Your task to perform on an android device: Add "asus rog" to the cart on newegg.com Image 0: 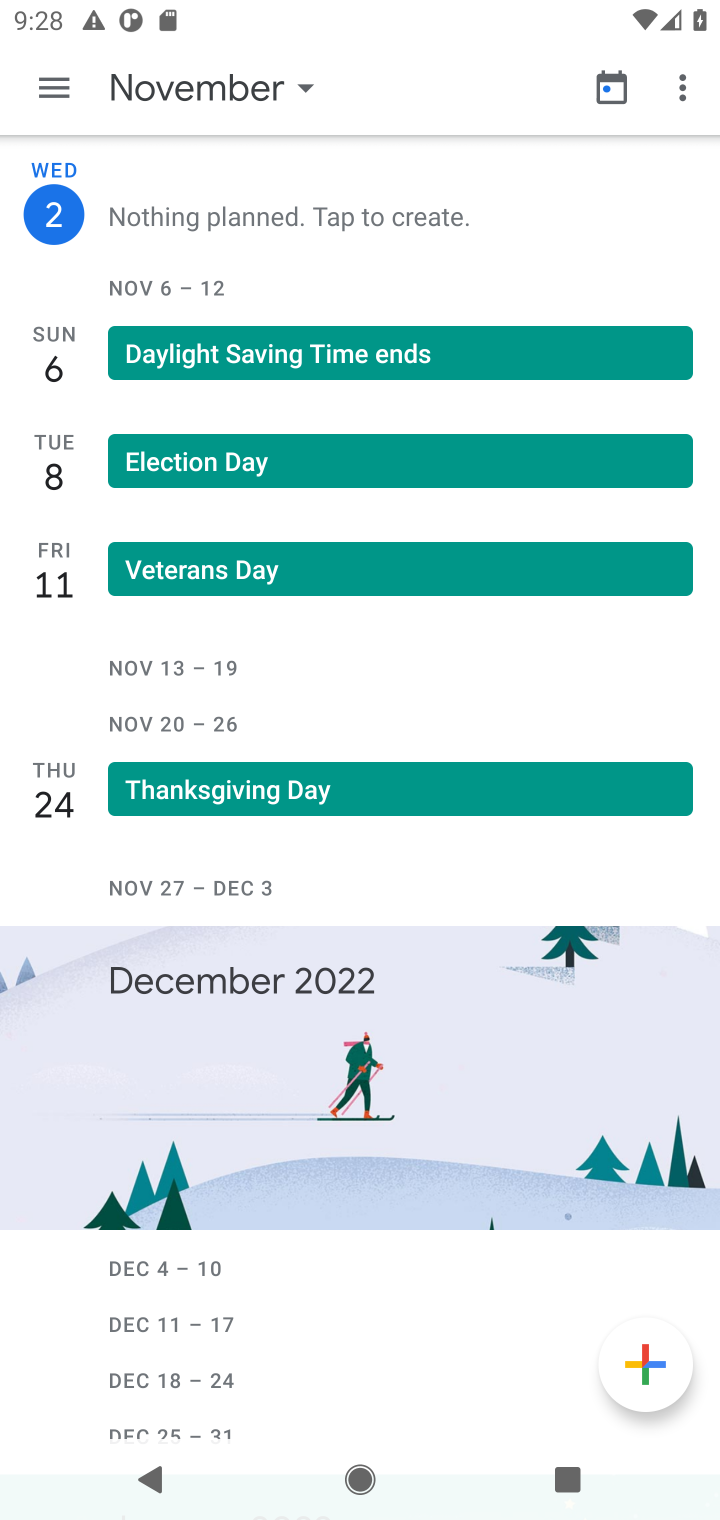
Step 0: press home button
Your task to perform on an android device: Add "asus rog" to the cart on newegg.com Image 1: 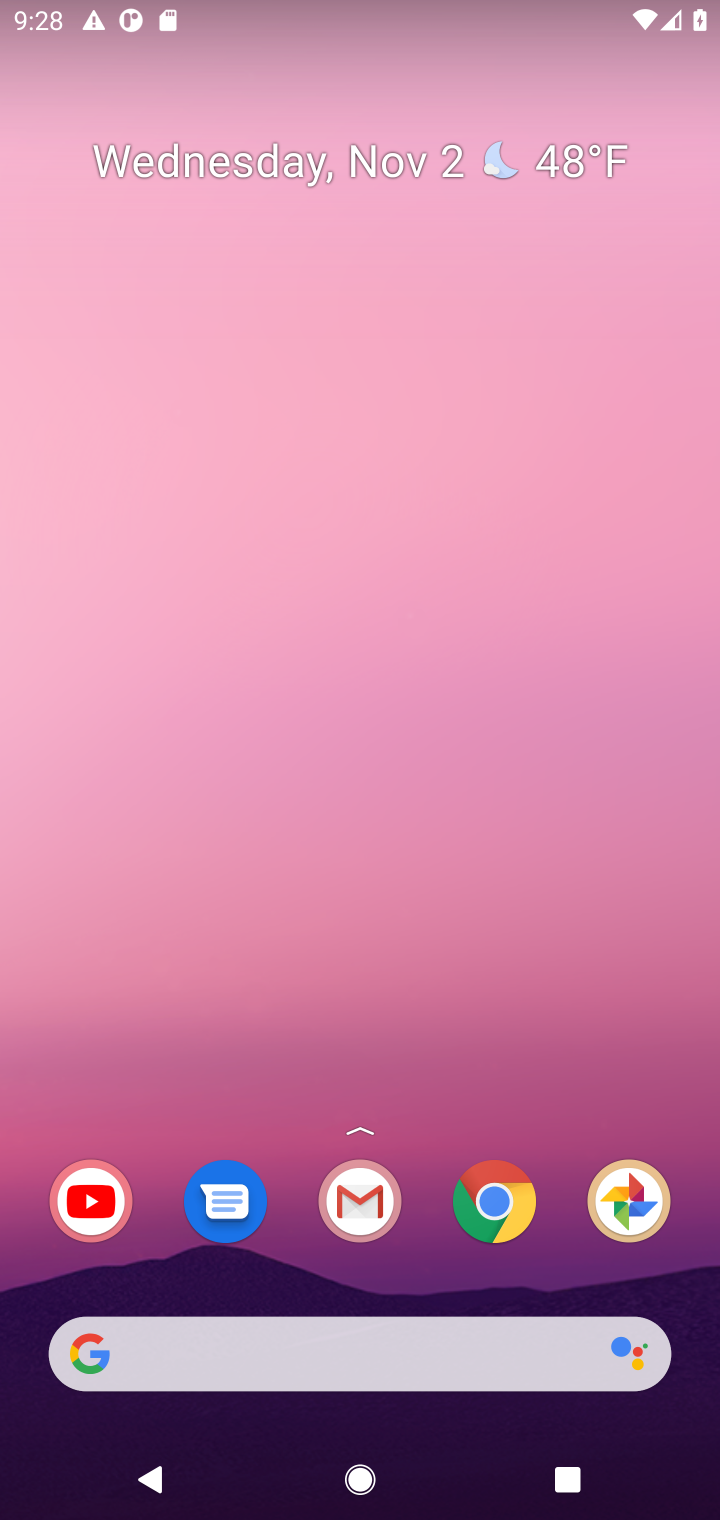
Step 1: drag from (424, 1294) to (412, 242)
Your task to perform on an android device: Add "asus rog" to the cart on newegg.com Image 2: 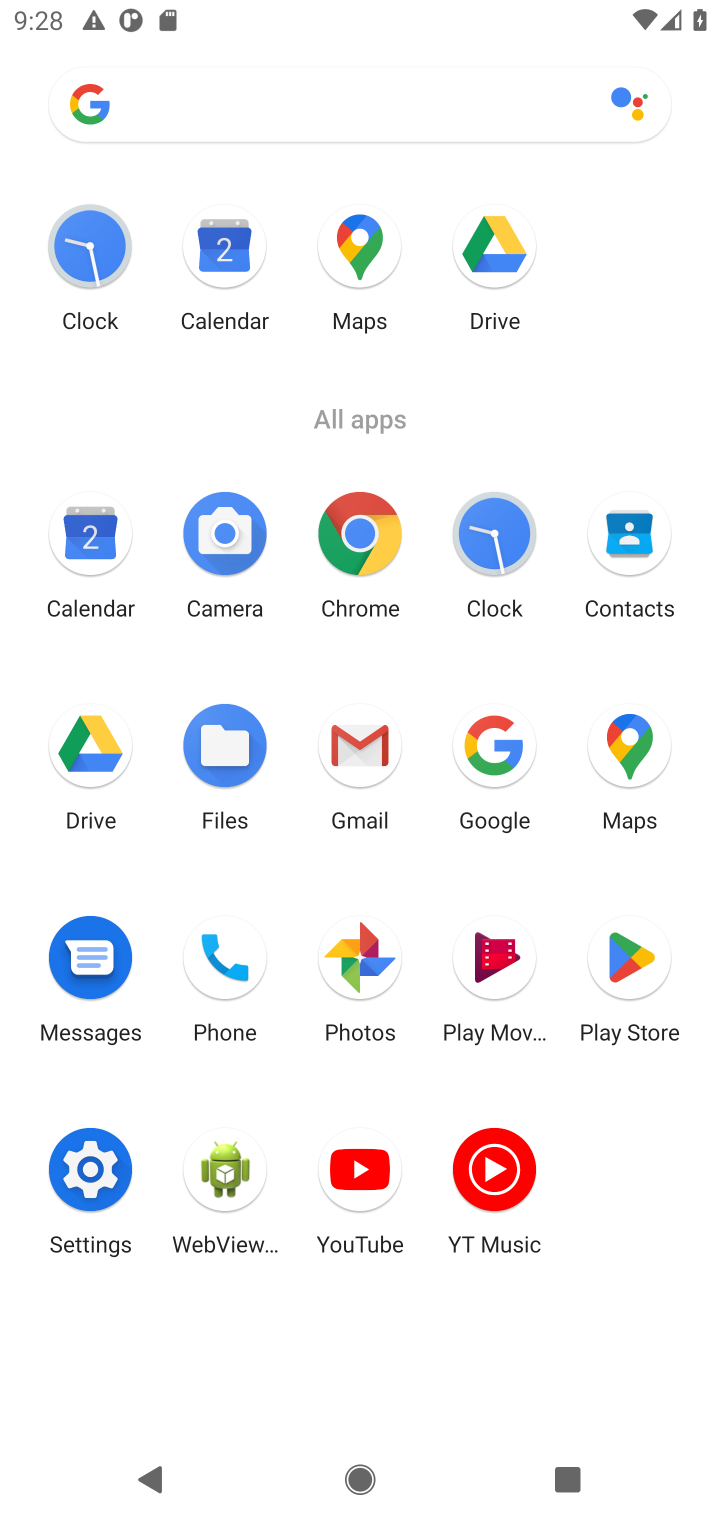
Step 2: click (360, 538)
Your task to perform on an android device: Add "asus rog" to the cart on newegg.com Image 3: 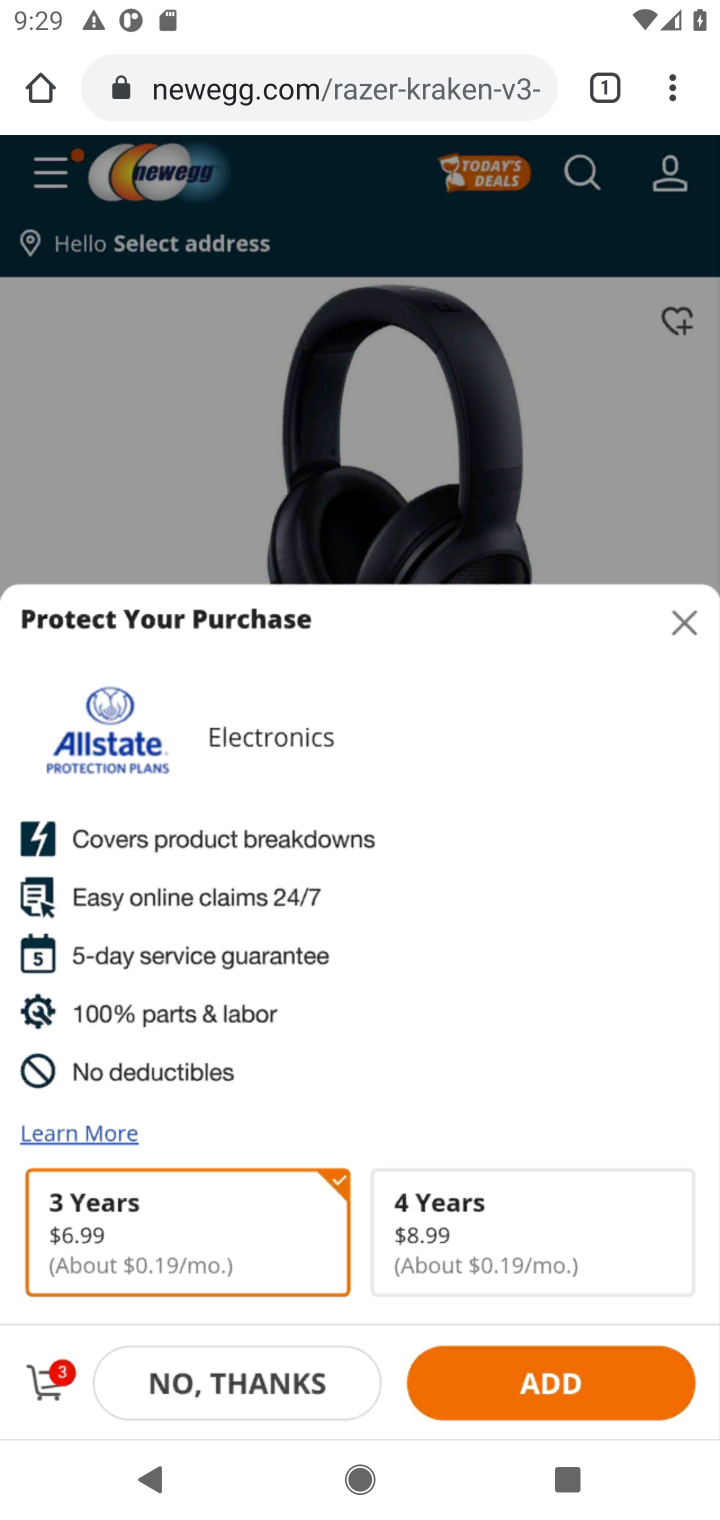
Step 3: click (455, 75)
Your task to perform on an android device: Add "asus rog" to the cart on newegg.com Image 4: 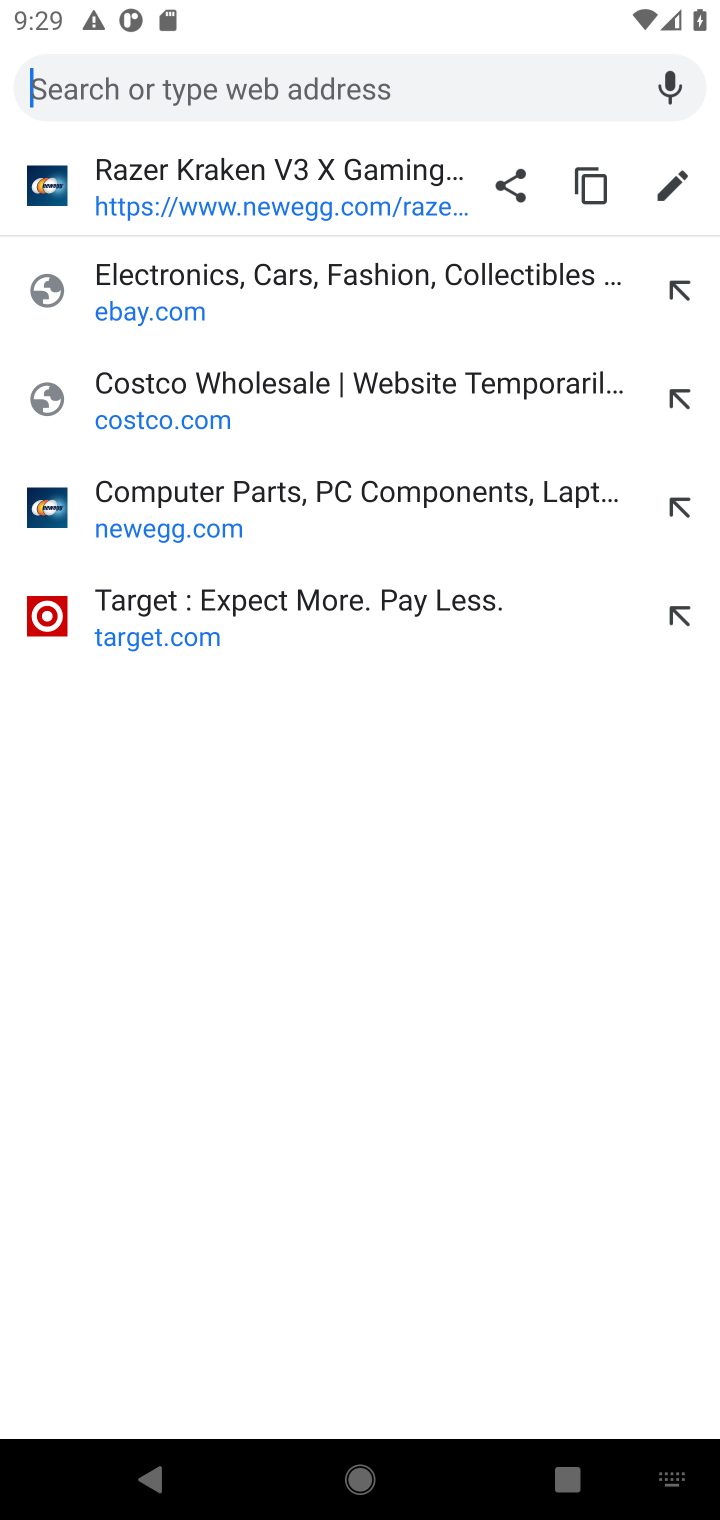
Step 4: type "newegg.com"
Your task to perform on an android device: Add "asus rog" to the cart on newegg.com Image 5: 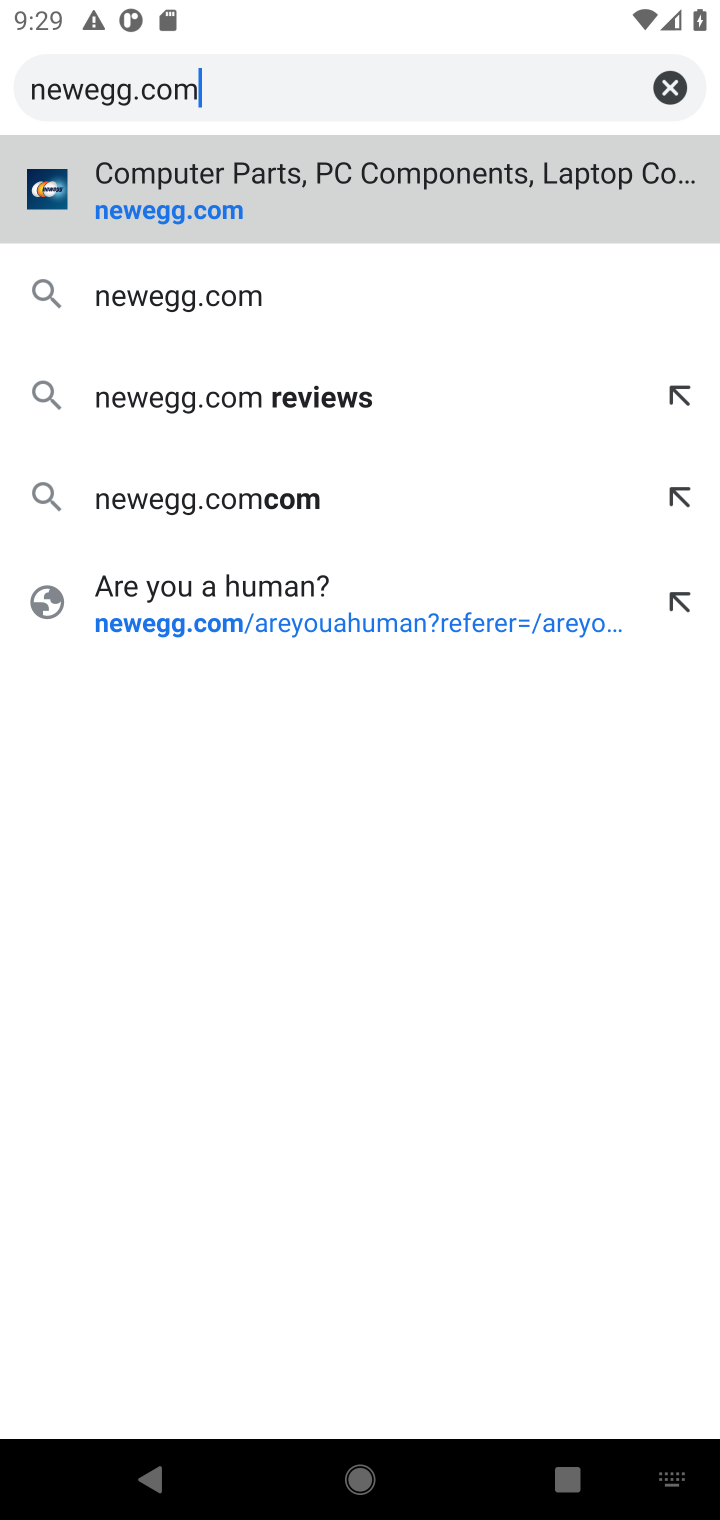
Step 5: press enter
Your task to perform on an android device: Add "asus rog" to the cart on newegg.com Image 6: 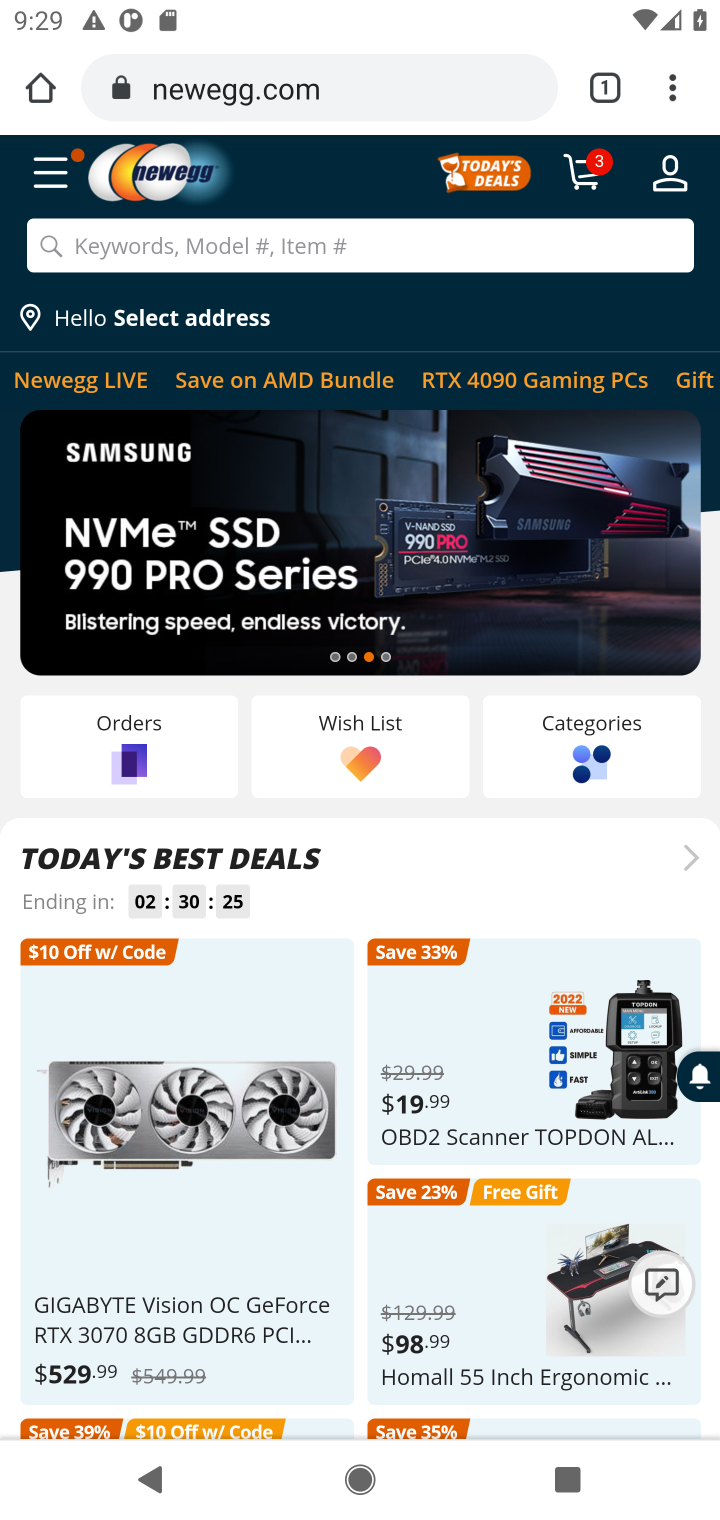
Step 6: click (505, 249)
Your task to perform on an android device: Add "asus rog" to the cart on newegg.com Image 7: 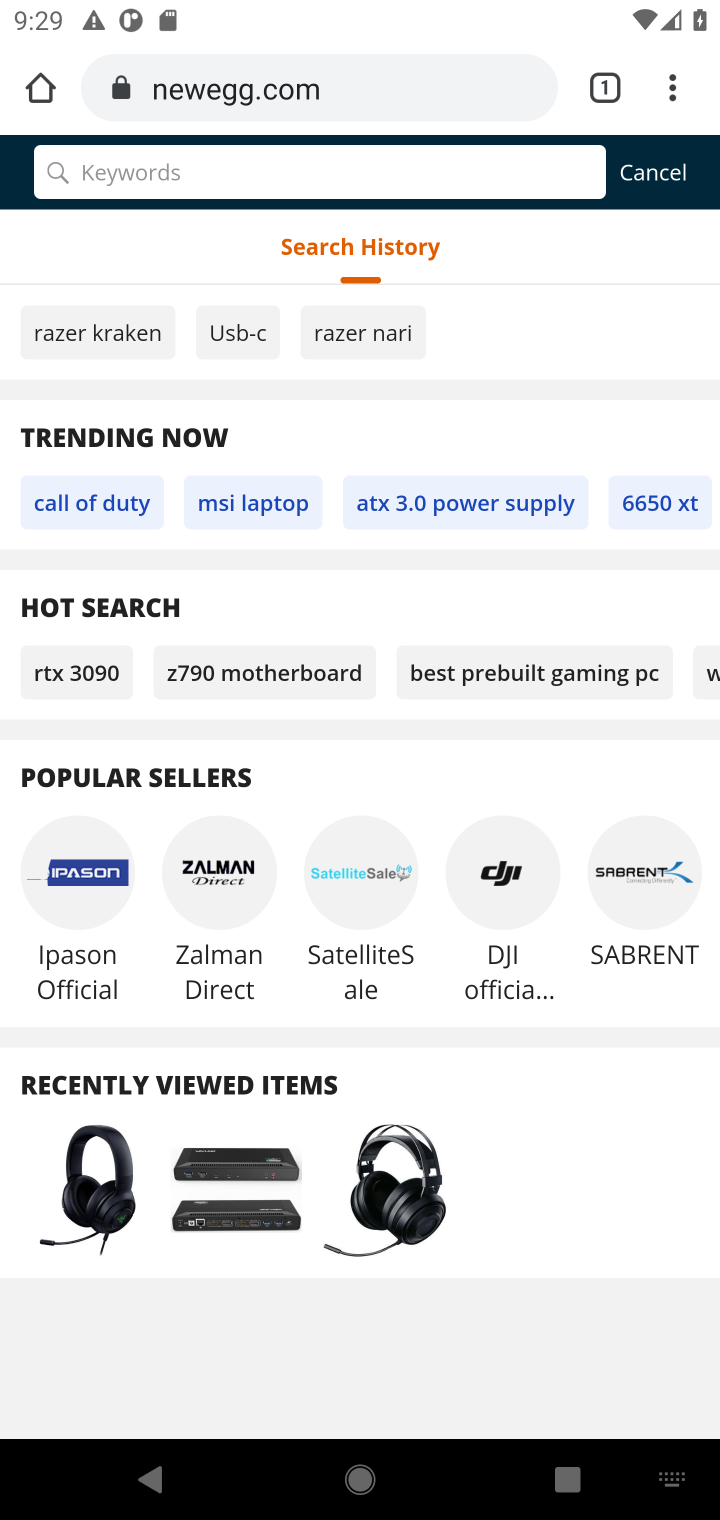
Step 7: type "asus rog"
Your task to perform on an android device: Add "asus rog" to the cart on newegg.com Image 8: 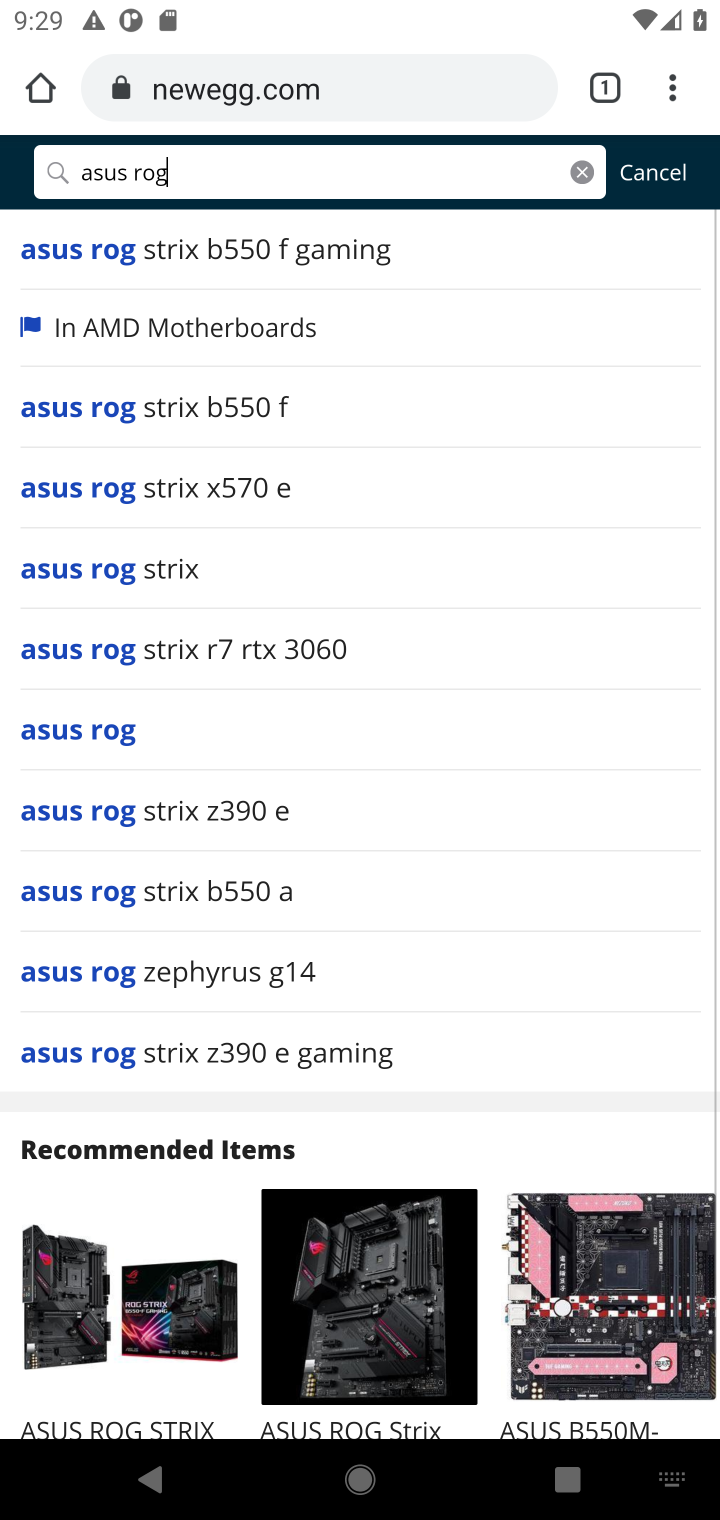
Step 8: press enter
Your task to perform on an android device: Add "asus rog" to the cart on newegg.com Image 9: 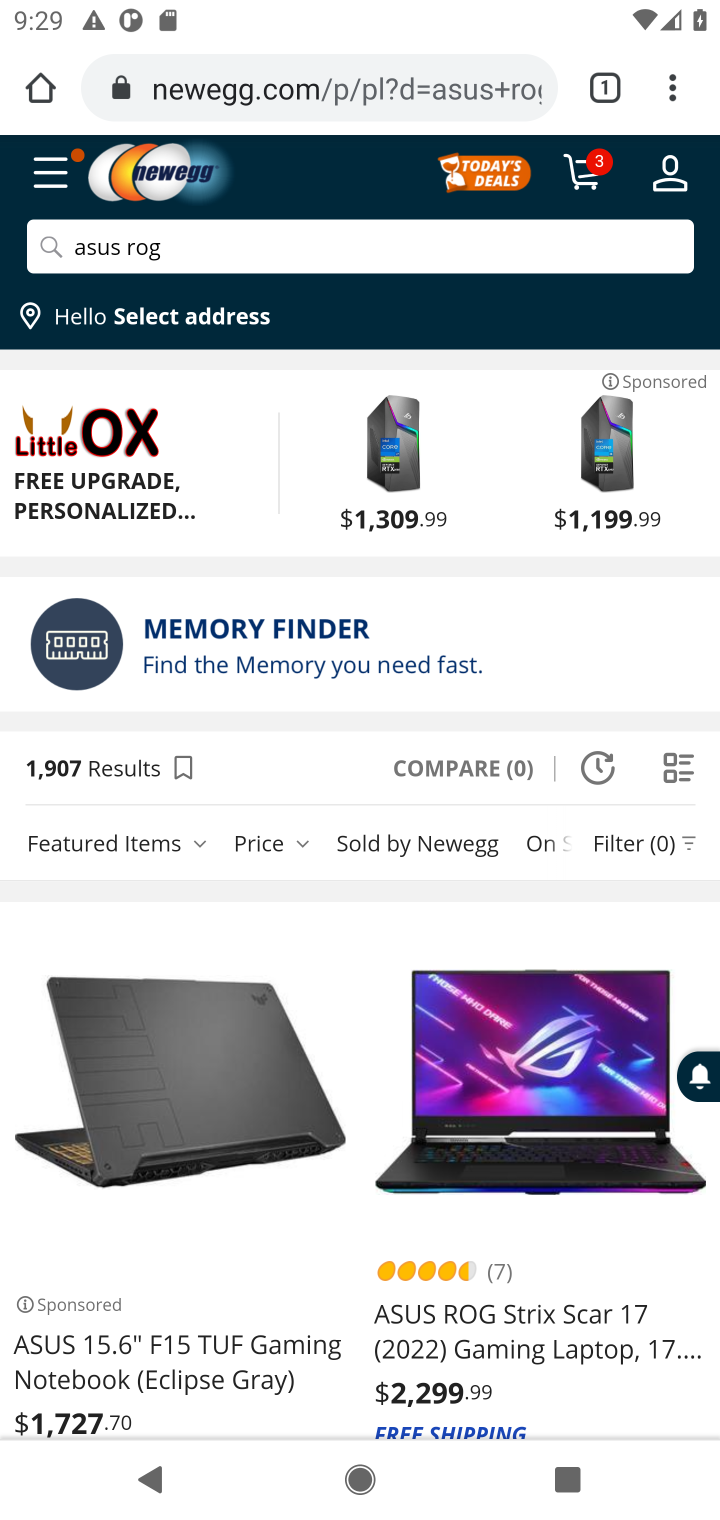
Step 9: drag from (441, 1211) to (343, 634)
Your task to perform on an android device: Add "asus rog" to the cart on newegg.com Image 10: 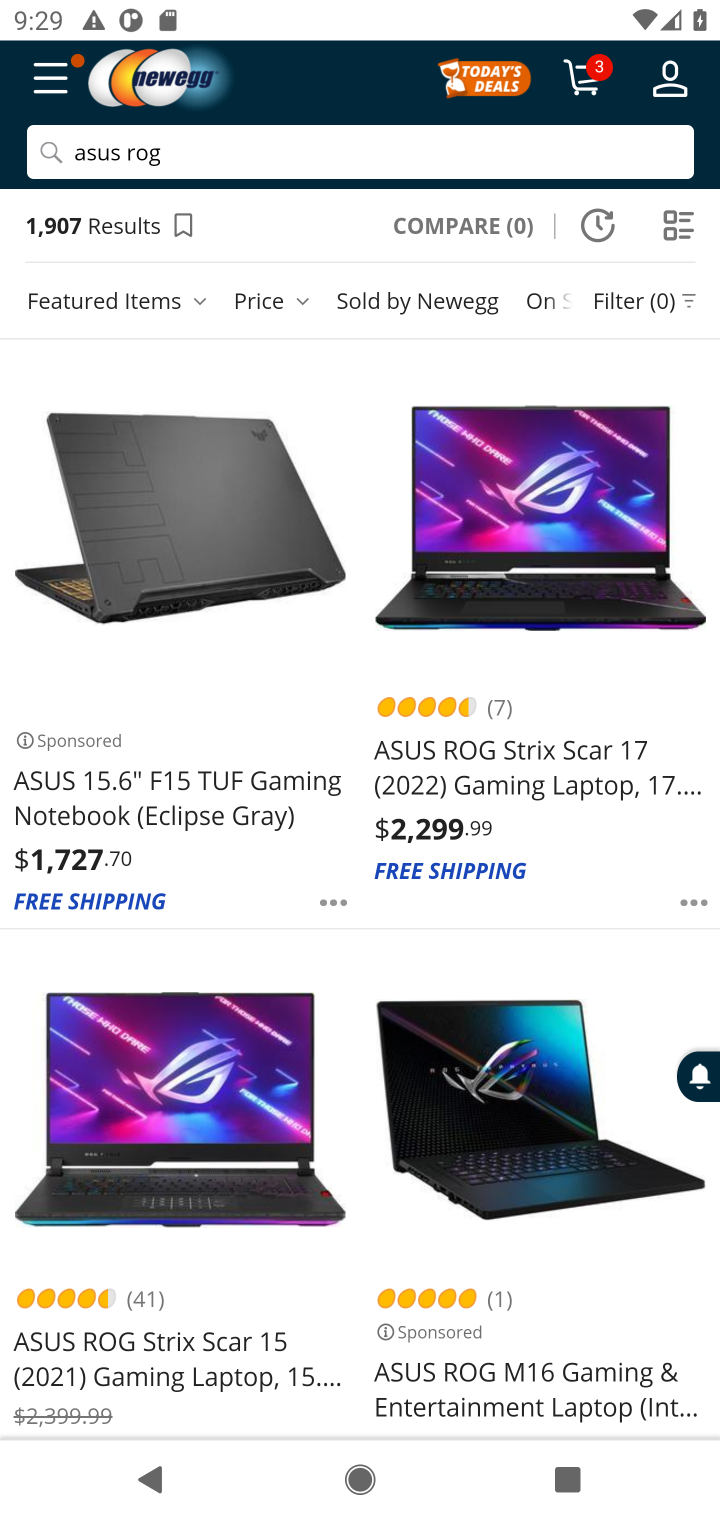
Step 10: click (501, 778)
Your task to perform on an android device: Add "asus rog" to the cart on newegg.com Image 11: 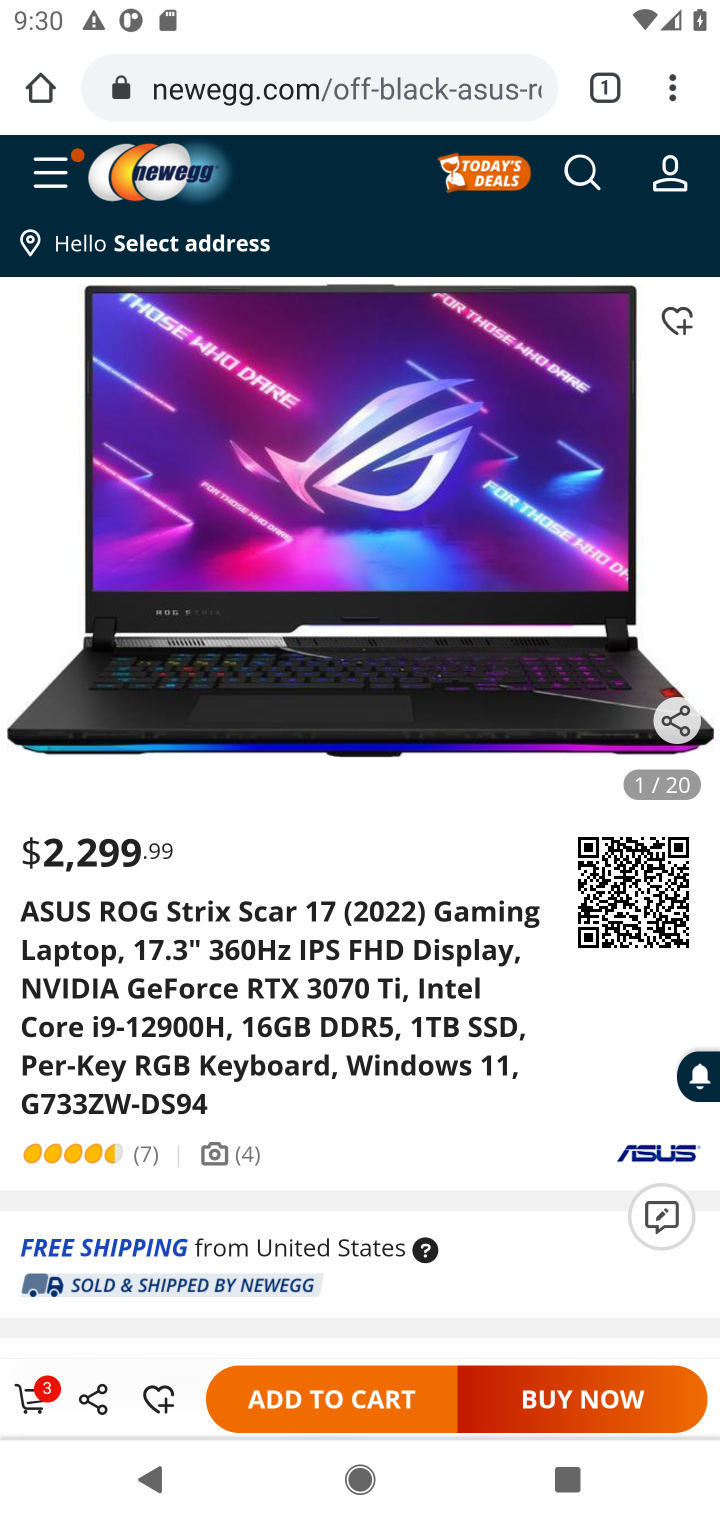
Step 11: click (368, 1391)
Your task to perform on an android device: Add "asus rog" to the cart on newegg.com Image 12: 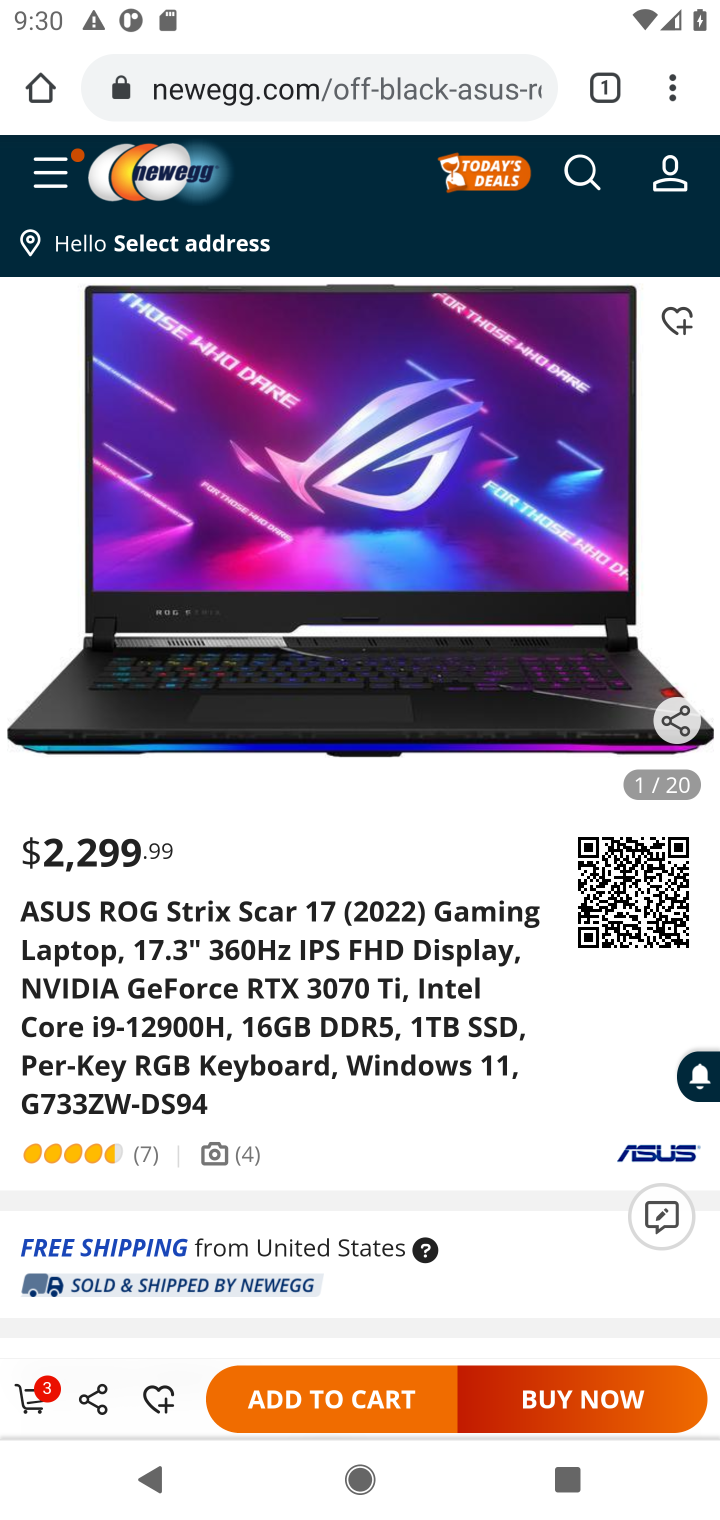
Step 12: task complete